Your task to perform on an android device: toggle priority inbox in the gmail app Image 0: 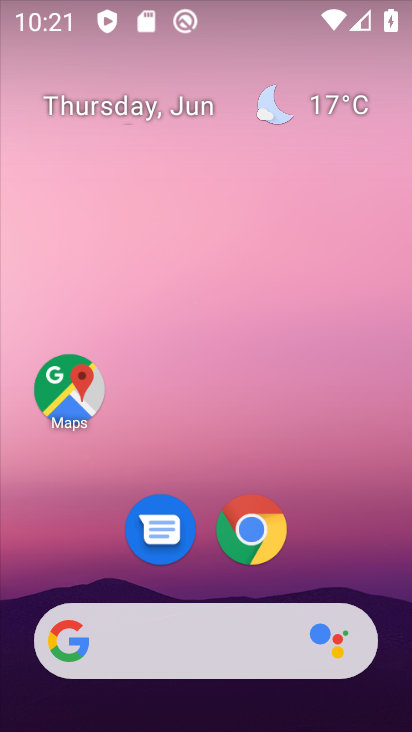
Step 0: drag from (213, 585) to (180, 32)
Your task to perform on an android device: toggle priority inbox in the gmail app Image 1: 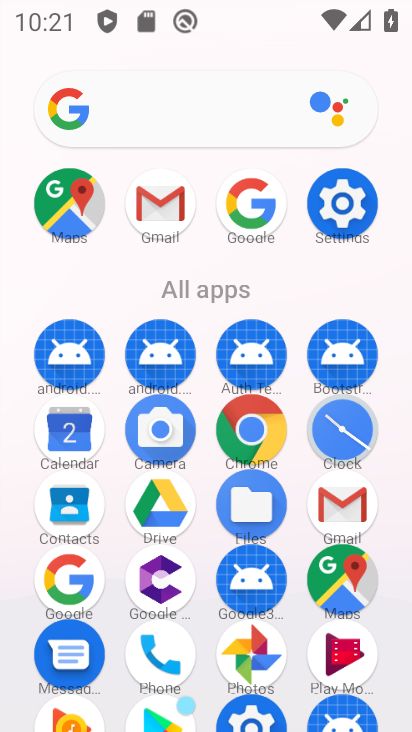
Step 1: click (156, 207)
Your task to perform on an android device: toggle priority inbox in the gmail app Image 2: 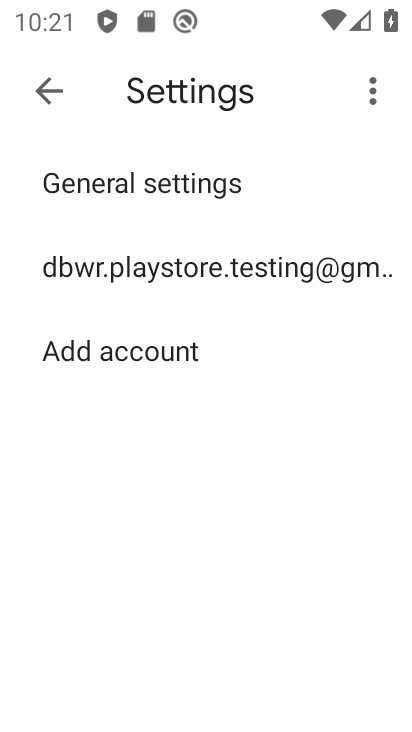
Step 2: click (88, 266)
Your task to perform on an android device: toggle priority inbox in the gmail app Image 3: 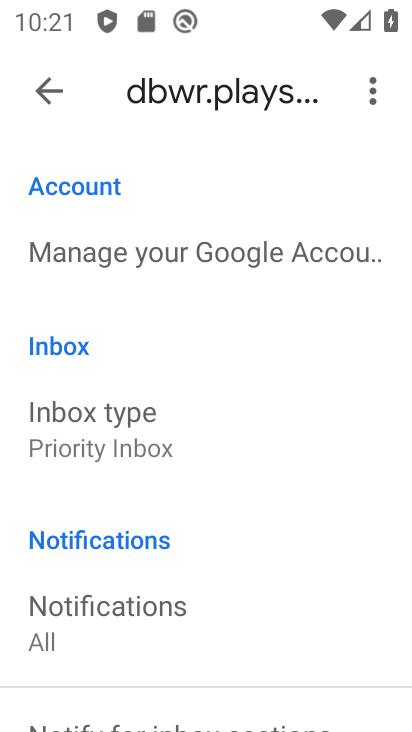
Step 3: click (84, 428)
Your task to perform on an android device: toggle priority inbox in the gmail app Image 4: 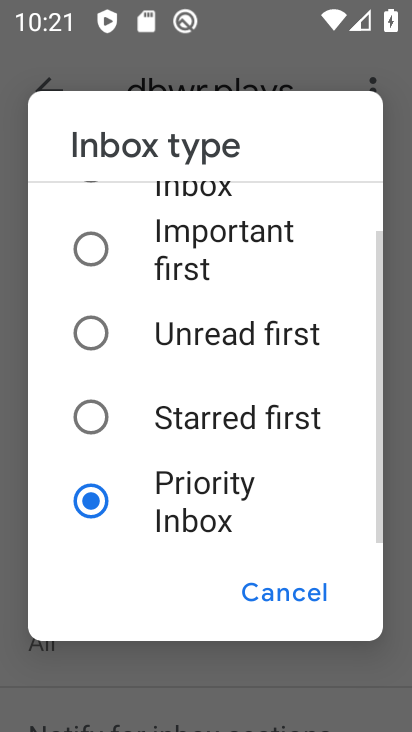
Step 4: click (180, 214)
Your task to perform on an android device: toggle priority inbox in the gmail app Image 5: 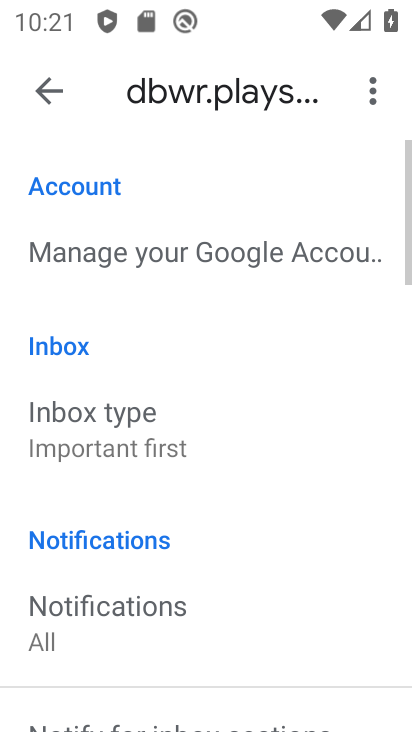
Step 5: task complete